Your task to perform on an android device: Open settings Image 0: 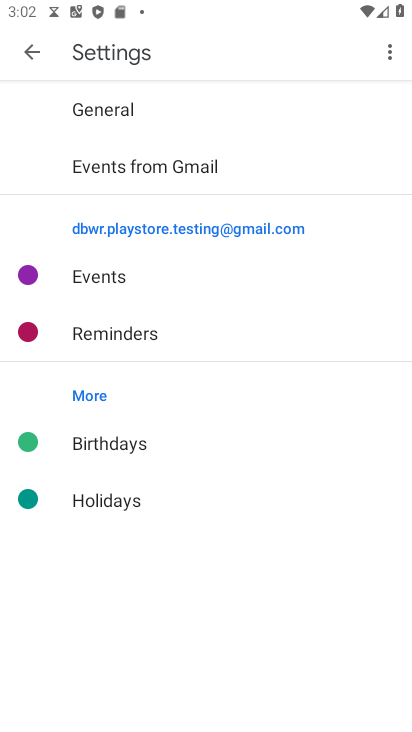
Step 0: click (121, 111)
Your task to perform on an android device: Open settings Image 1: 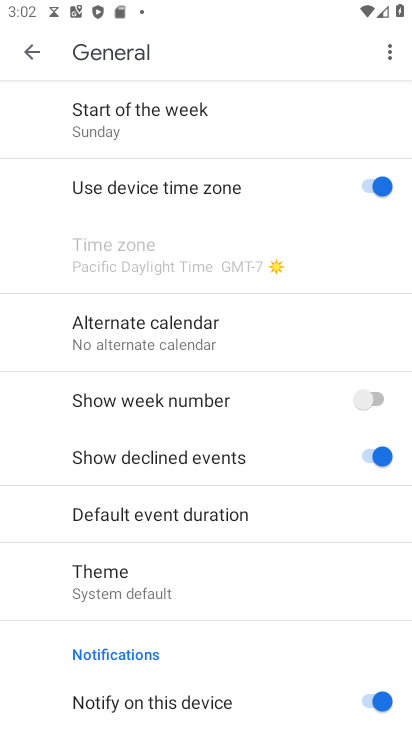
Step 1: press home button
Your task to perform on an android device: Open settings Image 2: 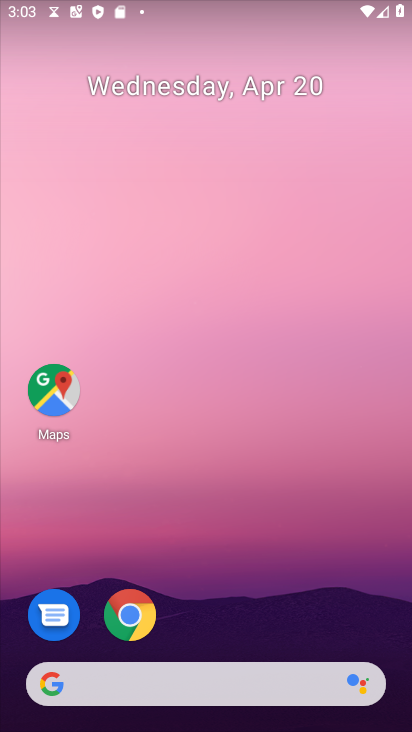
Step 2: drag from (224, 584) to (254, 299)
Your task to perform on an android device: Open settings Image 3: 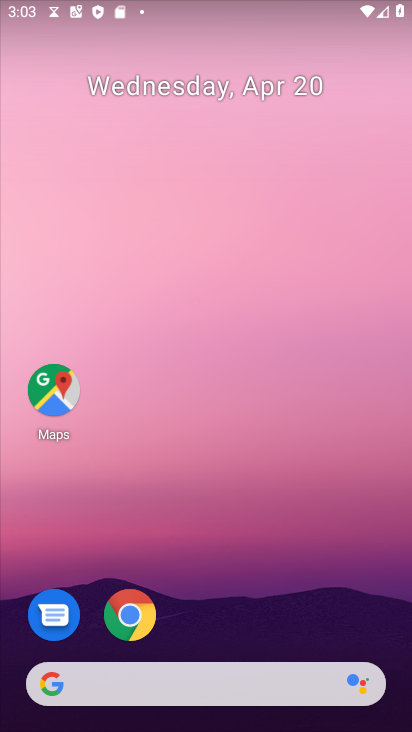
Step 3: drag from (176, 637) to (200, 278)
Your task to perform on an android device: Open settings Image 4: 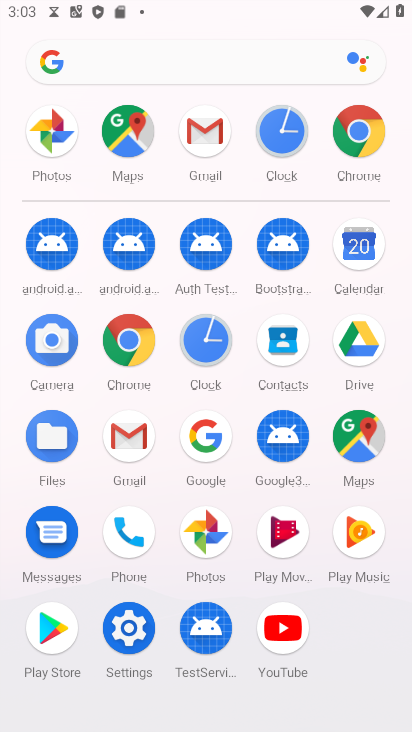
Step 4: click (130, 630)
Your task to perform on an android device: Open settings Image 5: 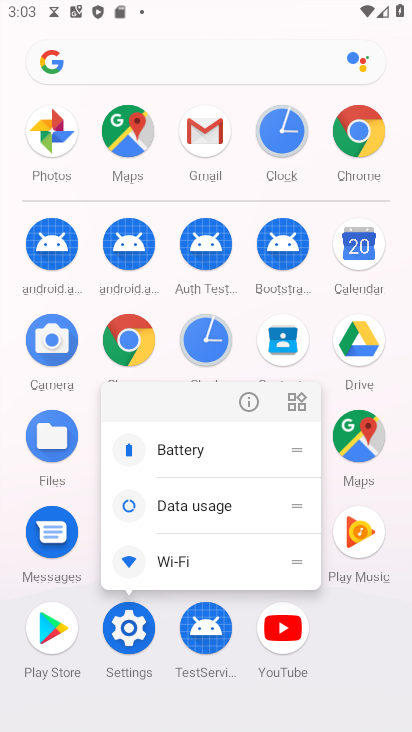
Step 5: click (251, 395)
Your task to perform on an android device: Open settings Image 6: 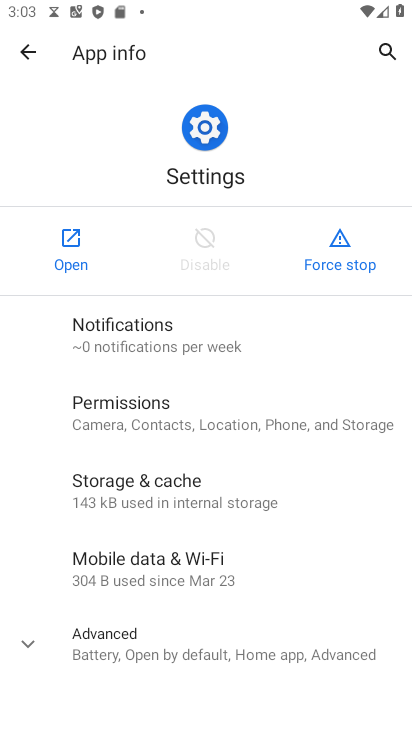
Step 6: click (86, 236)
Your task to perform on an android device: Open settings Image 7: 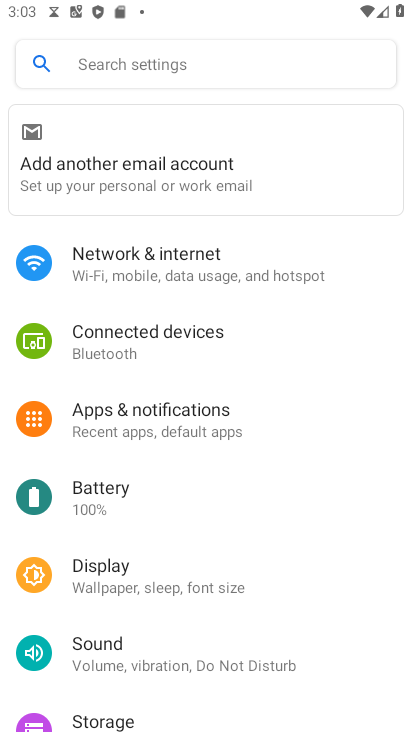
Step 7: task complete